Your task to perform on an android device: check battery use Image 0: 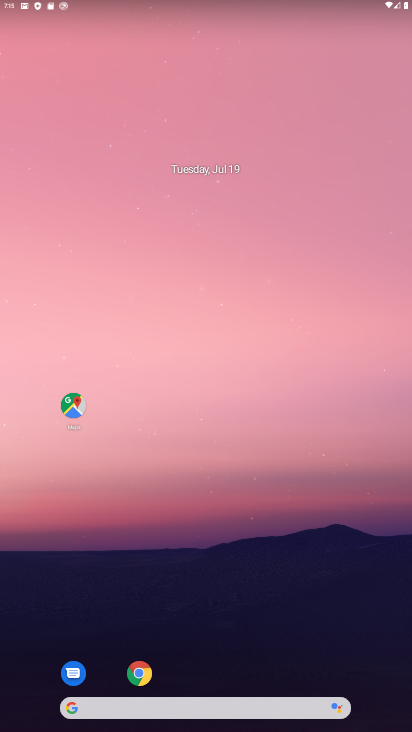
Step 0: drag from (314, 638) to (199, 27)
Your task to perform on an android device: check battery use Image 1: 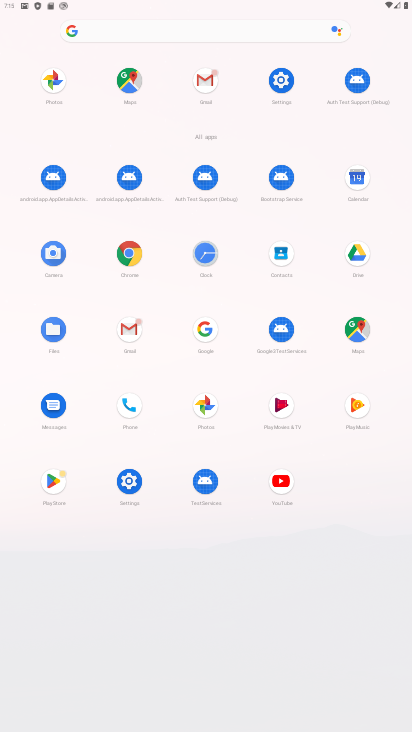
Step 1: click (290, 83)
Your task to perform on an android device: check battery use Image 2: 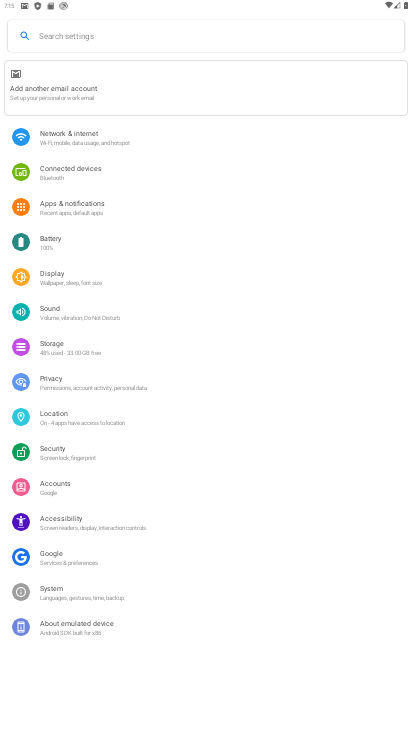
Step 2: click (64, 243)
Your task to perform on an android device: check battery use Image 3: 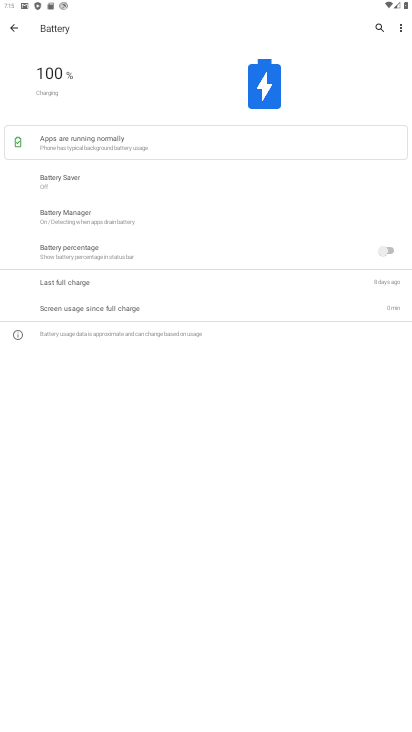
Step 3: task complete